Your task to perform on an android device: find snoozed emails in the gmail app Image 0: 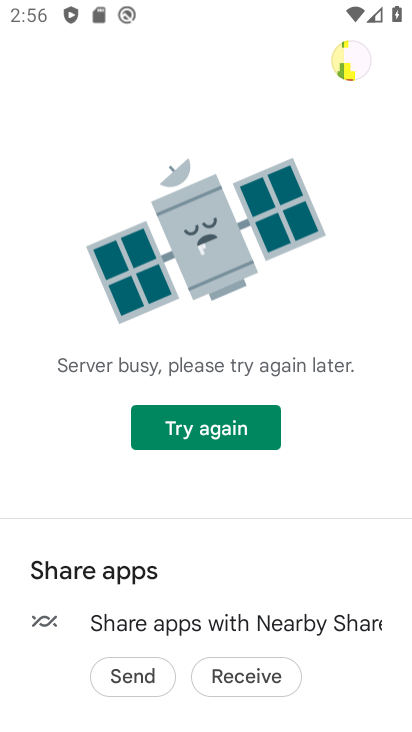
Step 0: press home button
Your task to perform on an android device: find snoozed emails in the gmail app Image 1: 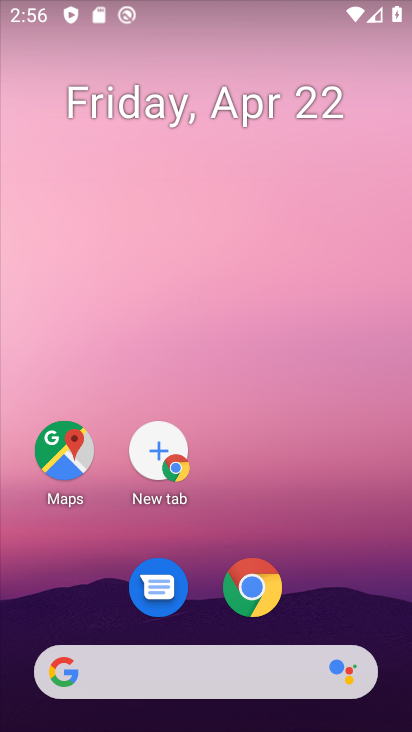
Step 1: drag from (195, 631) to (234, 1)
Your task to perform on an android device: find snoozed emails in the gmail app Image 2: 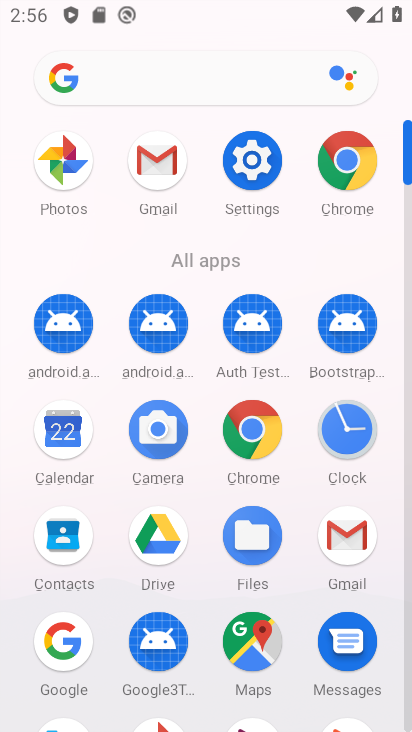
Step 2: click (364, 553)
Your task to perform on an android device: find snoozed emails in the gmail app Image 3: 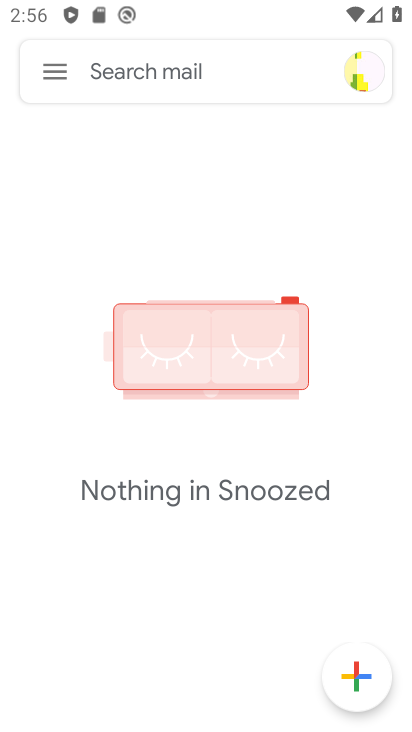
Step 3: click (60, 64)
Your task to perform on an android device: find snoozed emails in the gmail app Image 4: 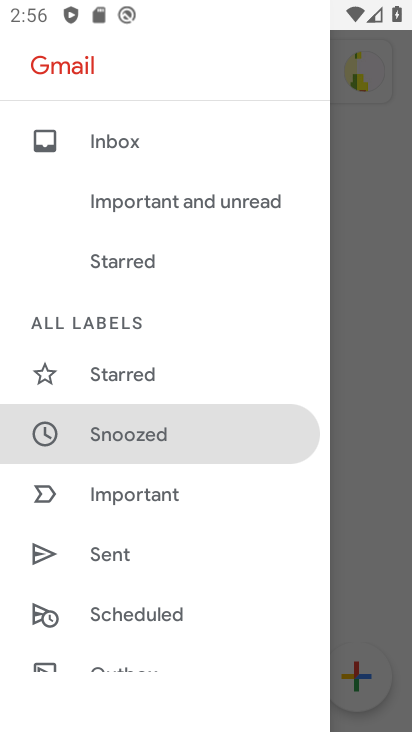
Step 4: click (191, 455)
Your task to perform on an android device: find snoozed emails in the gmail app Image 5: 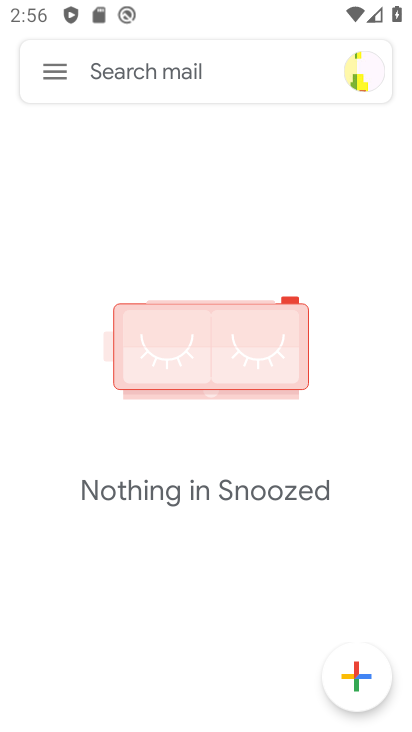
Step 5: task complete